Your task to perform on an android device: add a label to a message in the gmail app Image 0: 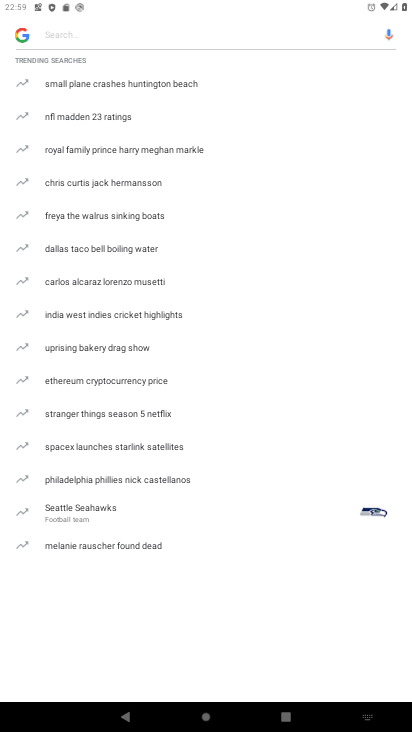
Step 0: press home button
Your task to perform on an android device: add a label to a message in the gmail app Image 1: 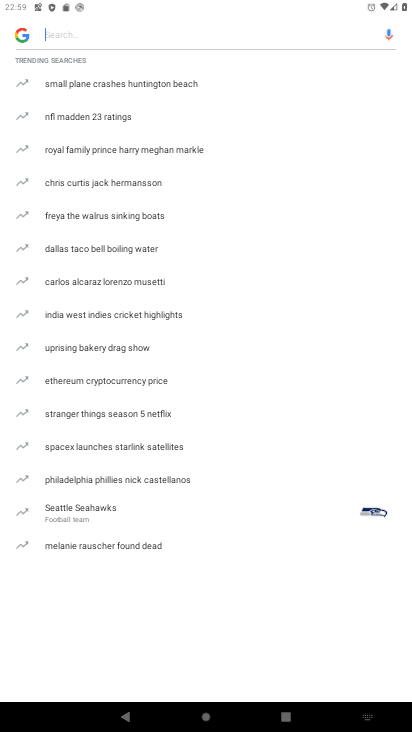
Step 1: press home button
Your task to perform on an android device: add a label to a message in the gmail app Image 2: 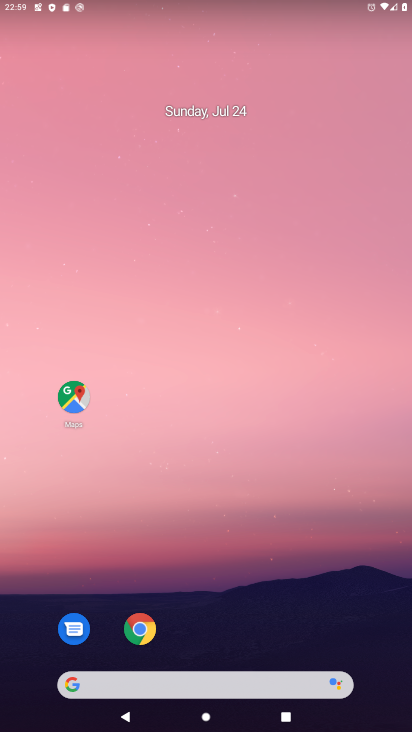
Step 2: drag from (164, 614) to (175, 220)
Your task to perform on an android device: add a label to a message in the gmail app Image 3: 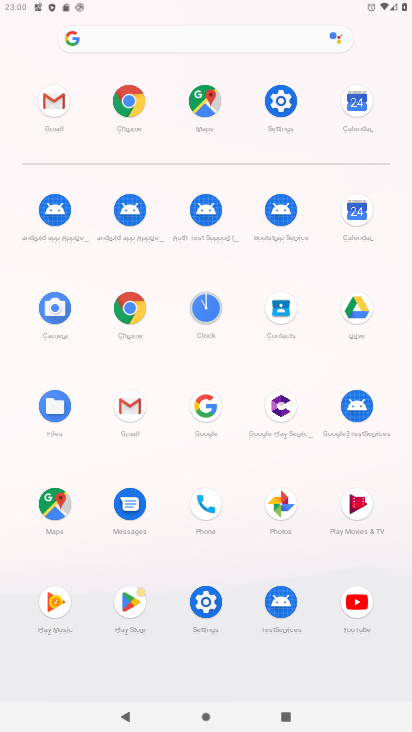
Step 3: click (126, 399)
Your task to perform on an android device: add a label to a message in the gmail app Image 4: 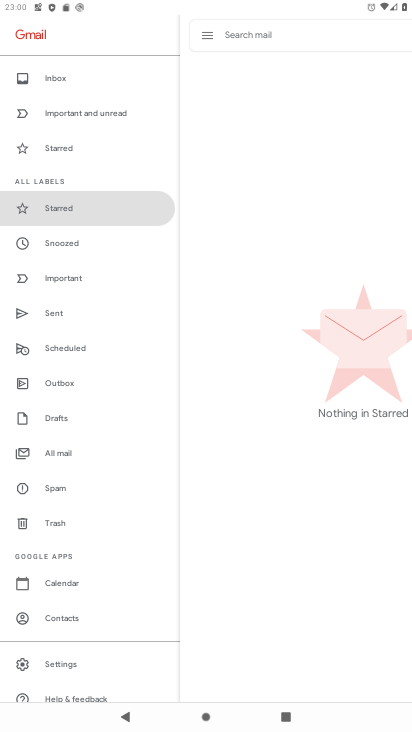
Step 4: click (46, 55)
Your task to perform on an android device: add a label to a message in the gmail app Image 5: 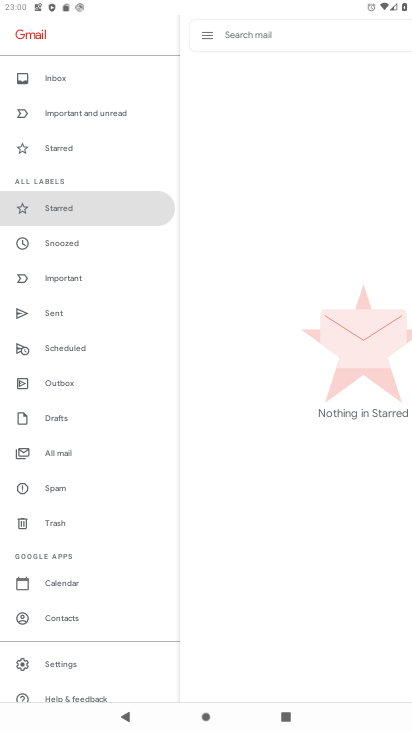
Step 5: click (70, 71)
Your task to perform on an android device: add a label to a message in the gmail app Image 6: 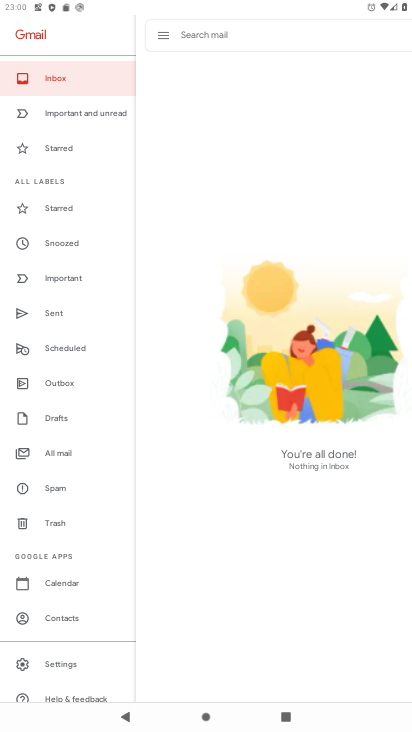
Step 6: task complete